Your task to perform on an android device: empty trash in google photos Image 0: 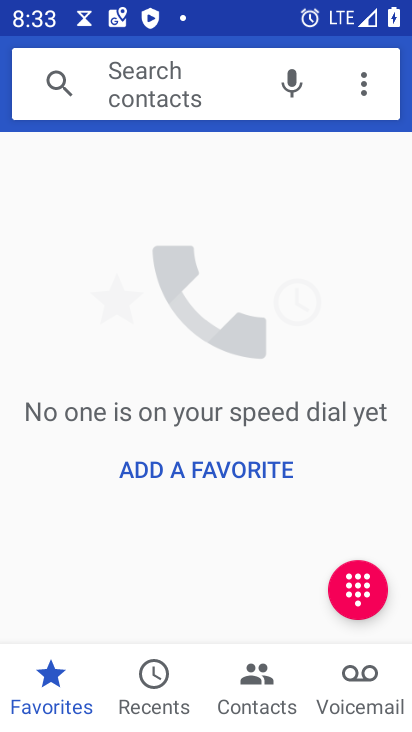
Step 0: press back button
Your task to perform on an android device: empty trash in google photos Image 1: 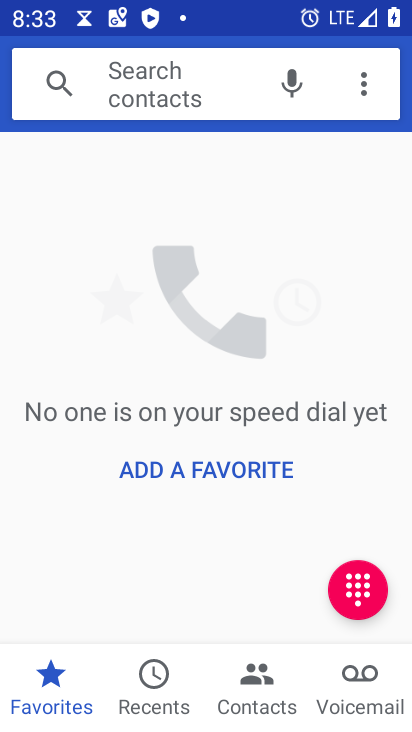
Step 1: press back button
Your task to perform on an android device: empty trash in google photos Image 2: 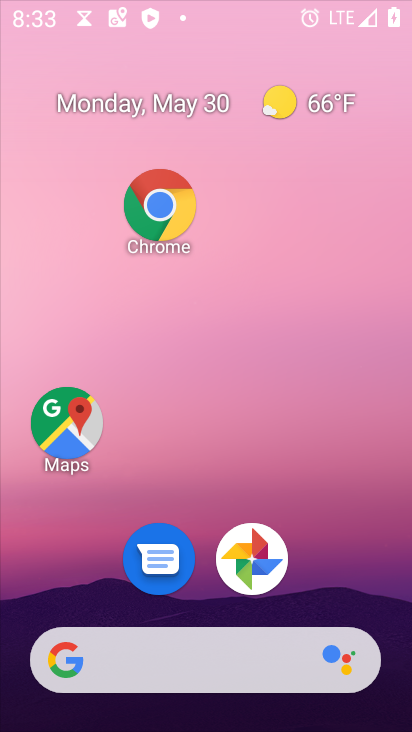
Step 2: press back button
Your task to perform on an android device: empty trash in google photos Image 3: 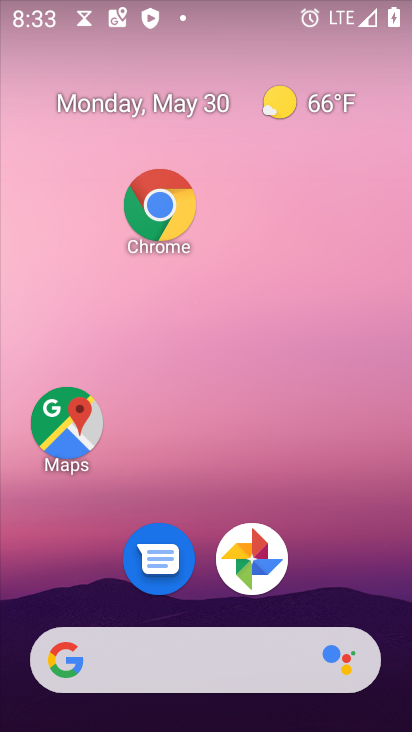
Step 3: drag from (244, 710) to (218, 184)
Your task to perform on an android device: empty trash in google photos Image 4: 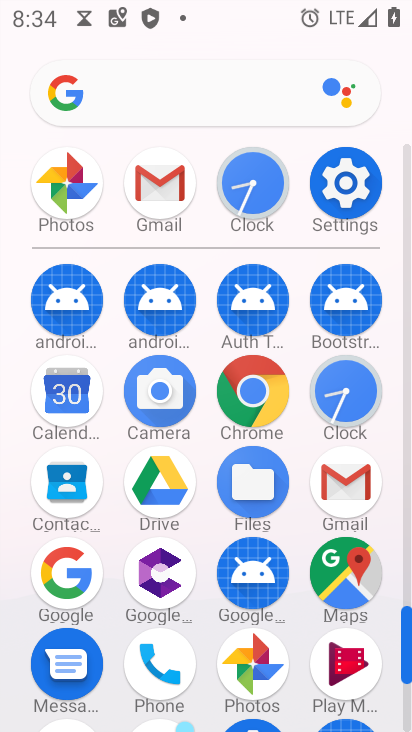
Step 4: click (266, 655)
Your task to perform on an android device: empty trash in google photos Image 5: 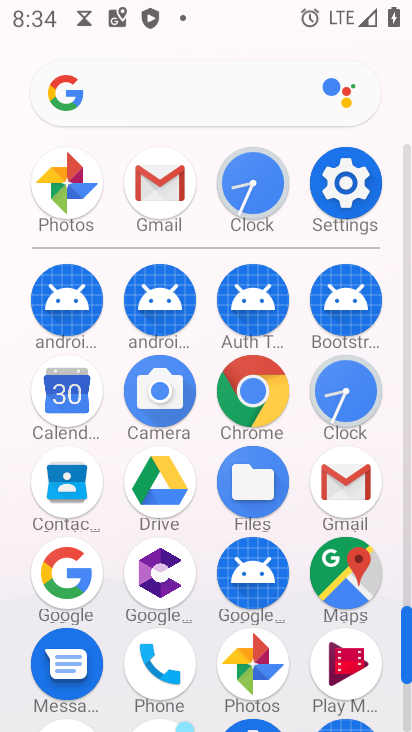
Step 5: click (261, 673)
Your task to perform on an android device: empty trash in google photos Image 6: 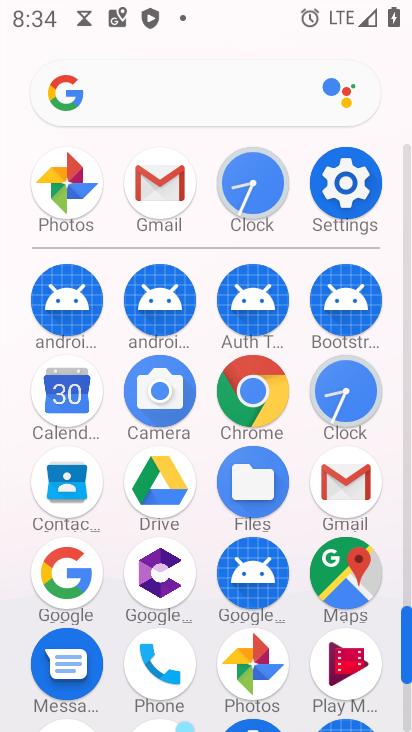
Step 6: click (258, 671)
Your task to perform on an android device: empty trash in google photos Image 7: 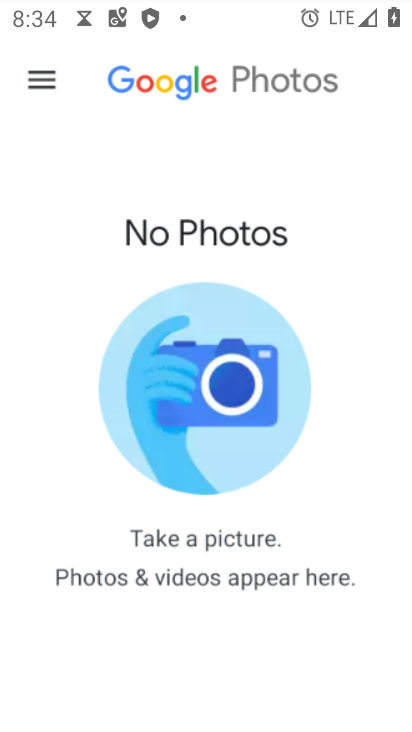
Step 7: click (250, 664)
Your task to perform on an android device: empty trash in google photos Image 8: 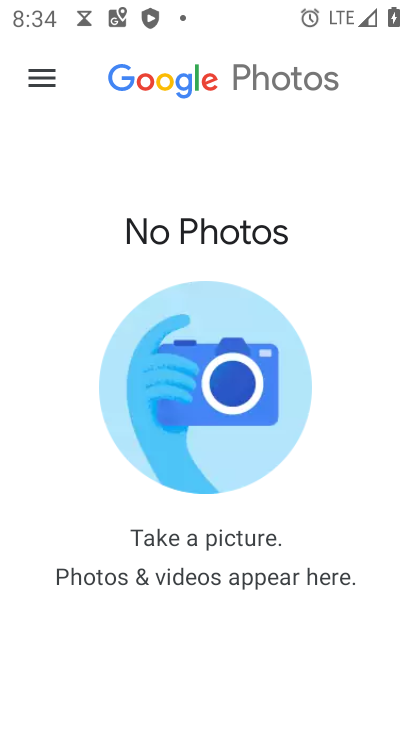
Step 8: click (250, 664)
Your task to perform on an android device: empty trash in google photos Image 9: 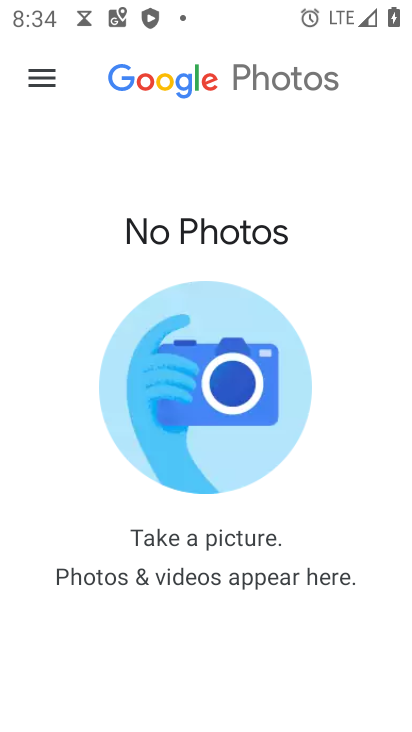
Step 9: click (44, 76)
Your task to perform on an android device: empty trash in google photos Image 10: 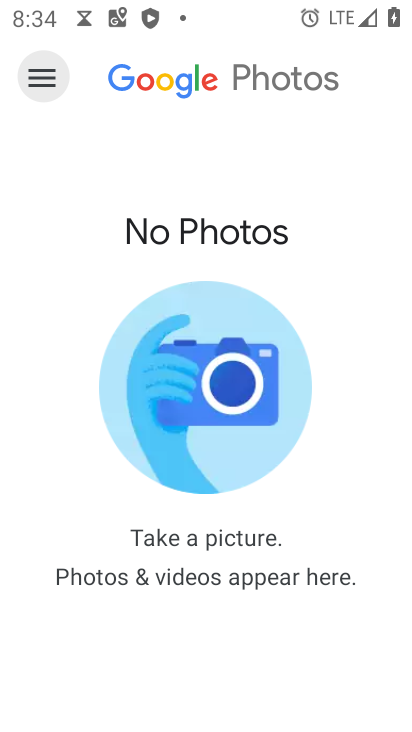
Step 10: click (44, 76)
Your task to perform on an android device: empty trash in google photos Image 11: 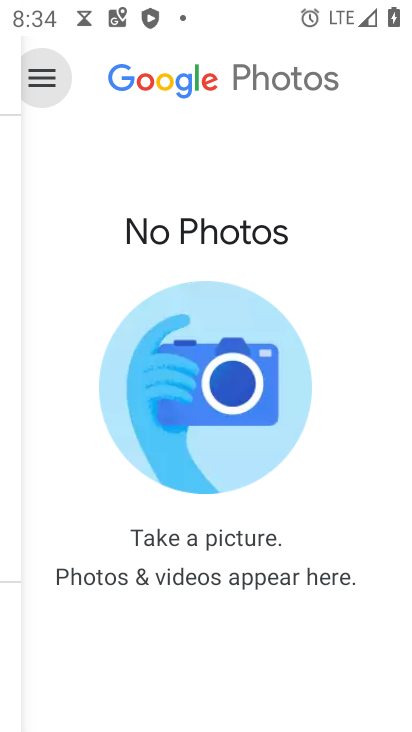
Step 11: click (44, 76)
Your task to perform on an android device: empty trash in google photos Image 12: 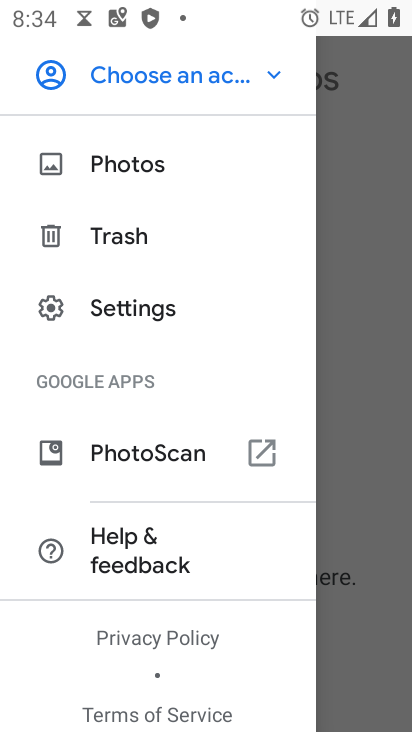
Step 12: click (129, 241)
Your task to perform on an android device: empty trash in google photos Image 13: 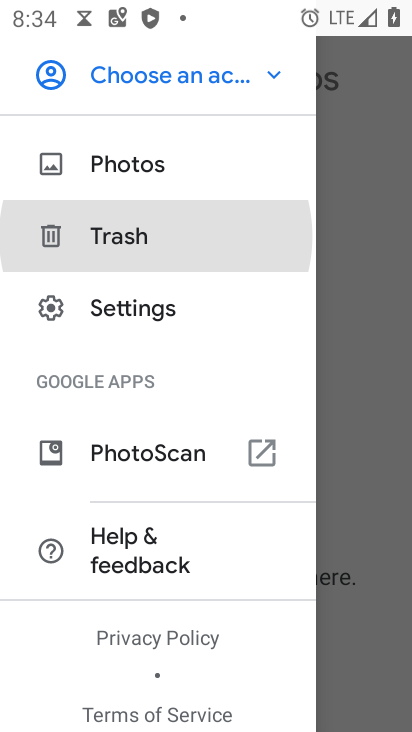
Step 13: click (129, 238)
Your task to perform on an android device: empty trash in google photos Image 14: 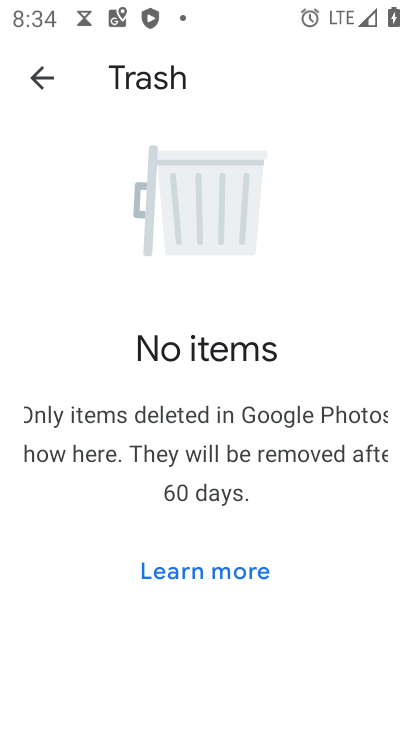
Step 14: task complete